Your task to perform on an android device: toggle improve location accuracy Image 0: 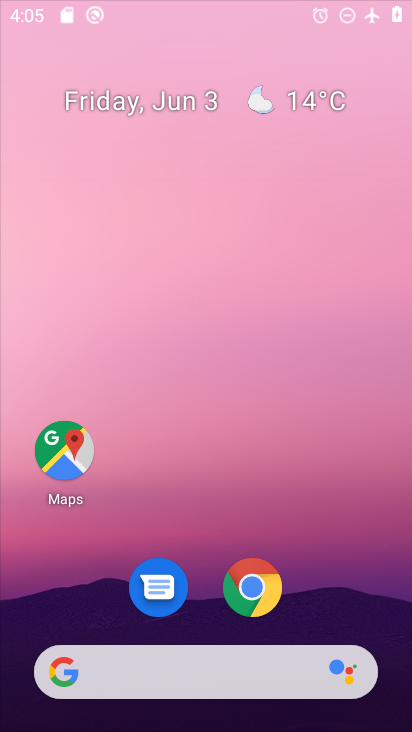
Step 0: drag from (226, 370) to (225, 96)
Your task to perform on an android device: toggle improve location accuracy Image 1: 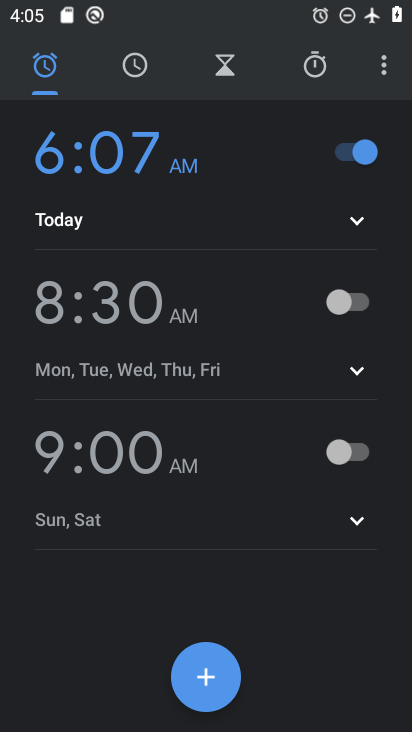
Step 1: press home button
Your task to perform on an android device: toggle improve location accuracy Image 2: 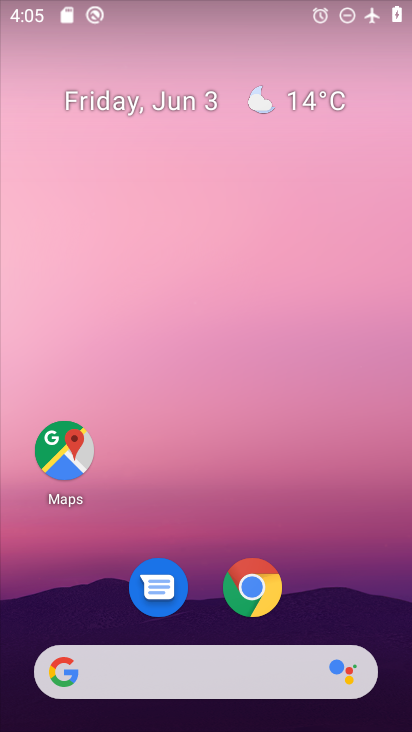
Step 2: drag from (249, 713) to (246, 185)
Your task to perform on an android device: toggle improve location accuracy Image 3: 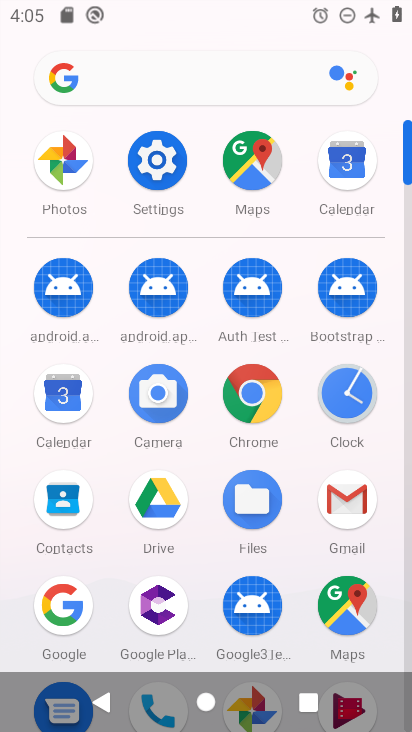
Step 3: click (157, 158)
Your task to perform on an android device: toggle improve location accuracy Image 4: 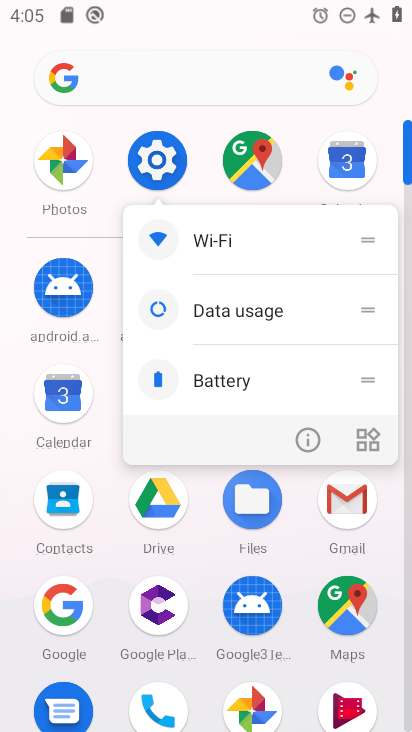
Step 4: click (149, 164)
Your task to perform on an android device: toggle improve location accuracy Image 5: 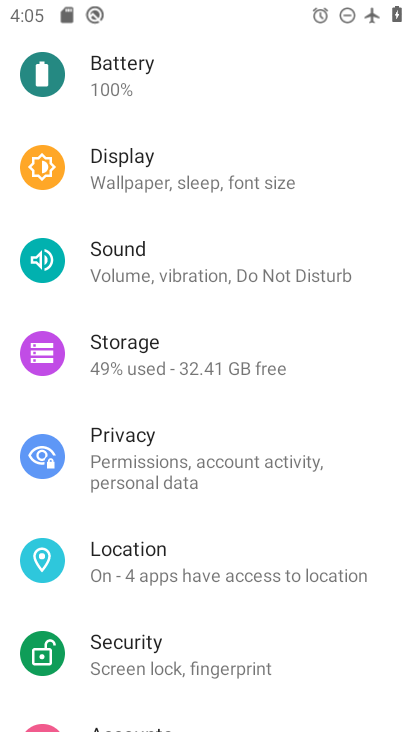
Step 5: click (123, 562)
Your task to perform on an android device: toggle improve location accuracy Image 6: 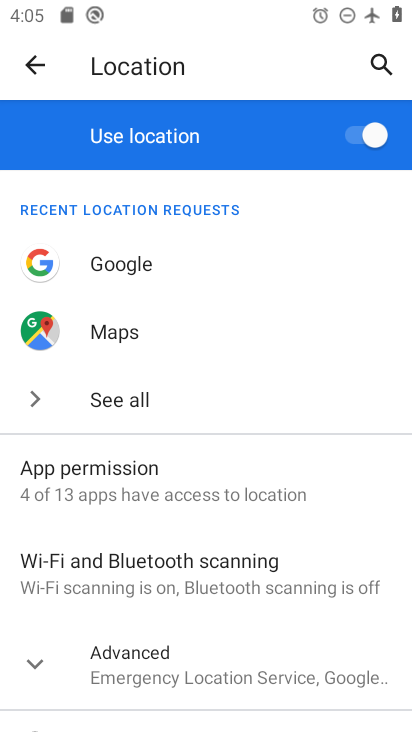
Step 6: click (189, 676)
Your task to perform on an android device: toggle improve location accuracy Image 7: 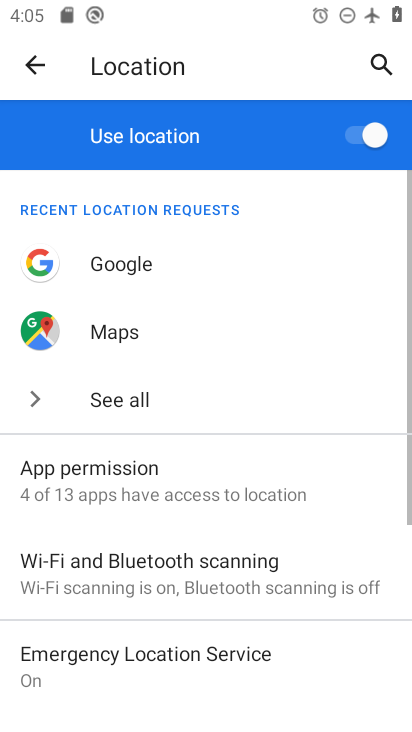
Step 7: drag from (216, 684) to (185, 322)
Your task to perform on an android device: toggle improve location accuracy Image 8: 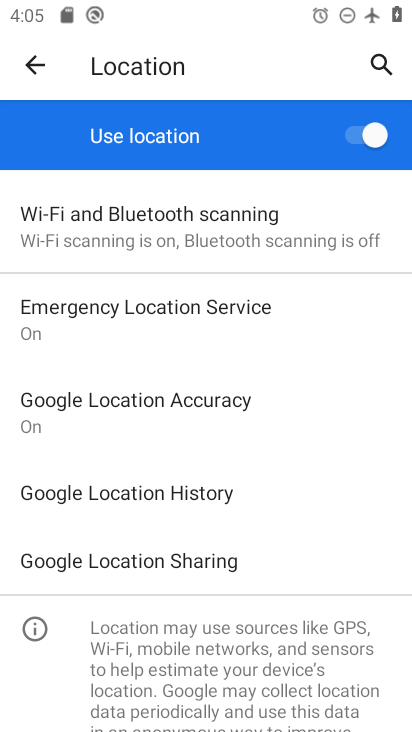
Step 8: click (131, 401)
Your task to perform on an android device: toggle improve location accuracy Image 9: 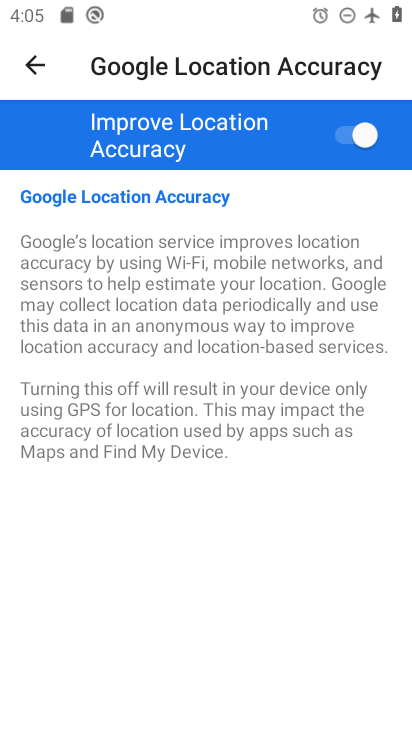
Step 9: click (346, 143)
Your task to perform on an android device: toggle improve location accuracy Image 10: 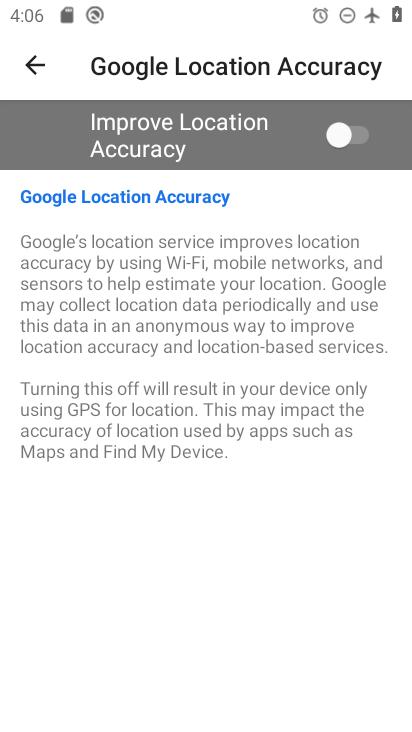
Step 10: task complete